Your task to perform on an android device: Go to internet settings Image 0: 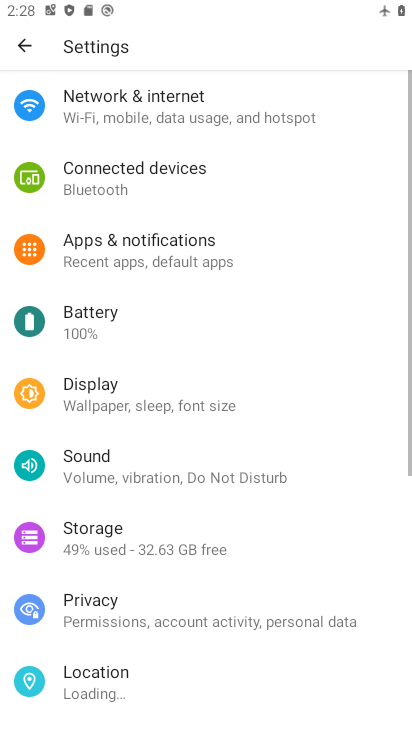
Step 0: drag from (209, 671) to (228, 592)
Your task to perform on an android device: Go to internet settings Image 1: 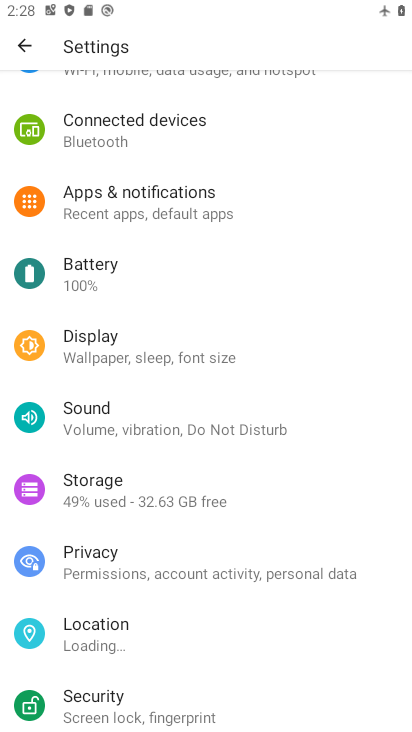
Step 1: drag from (159, 113) to (198, 454)
Your task to perform on an android device: Go to internet settings Image 2: 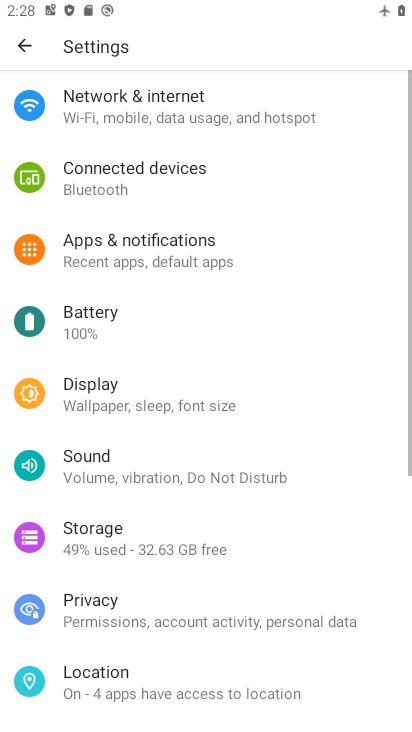
Step 2: click (142, 103)
Your task to perform on an android device: Go to internet settings Image 3: 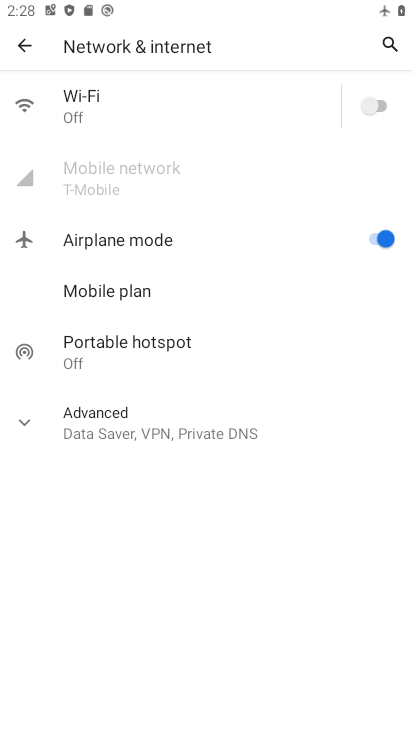
Step 3: click (121, 430)
Your task to perform on an android device: Go to internet settings Image 4: 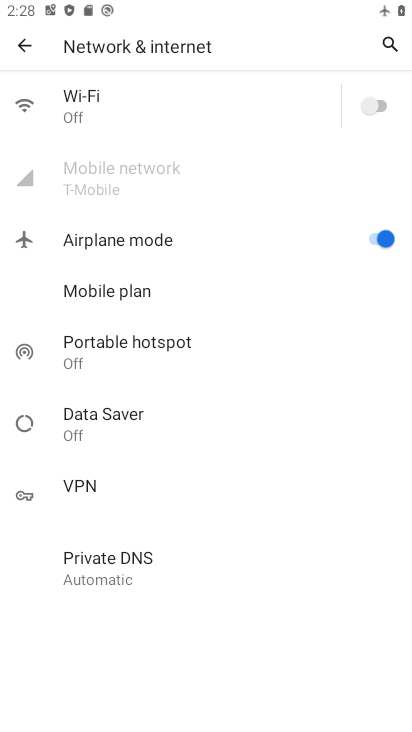
Step 4: task complete